Your task to perform on an android device: empty trash in google photos Image 0: 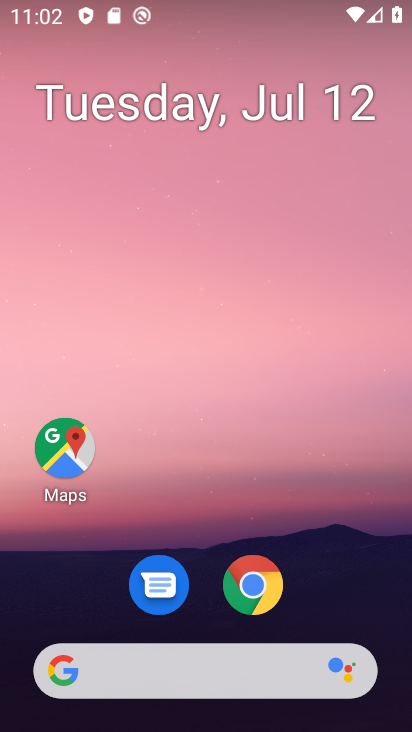
Step 0: drag from (323, 586) to (313, 103)
Your task to perform on an android device: empty trash in google photos Image 1: 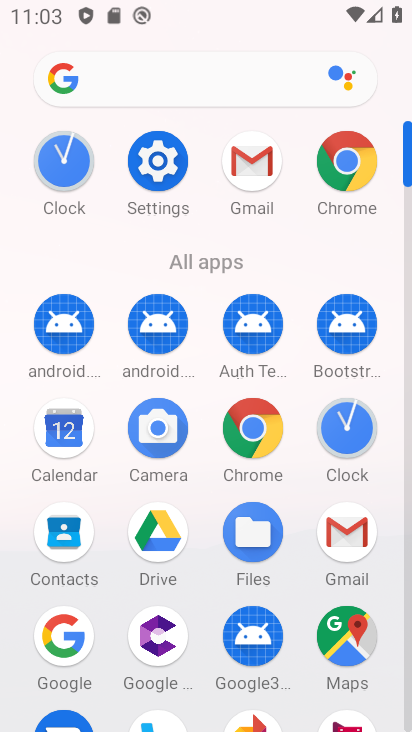
Step 1: drag from (212, 552) to (255, 170)
Your task to perform on an android device: empty trash in google photos Image 2: 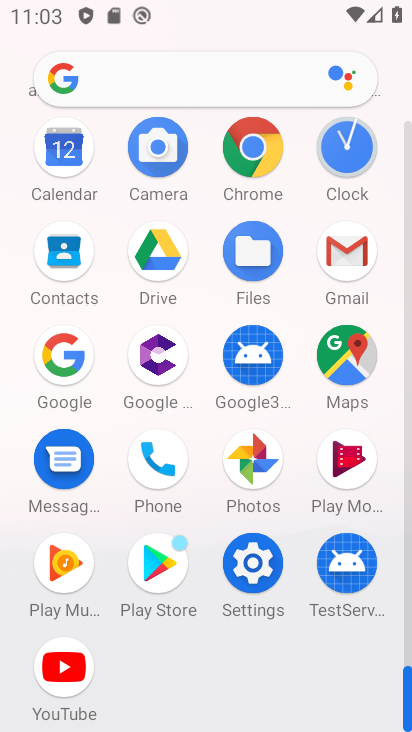
Step 2: click (248, 447)
Your task to perform on an android device: empty trash in google photos Image 3: 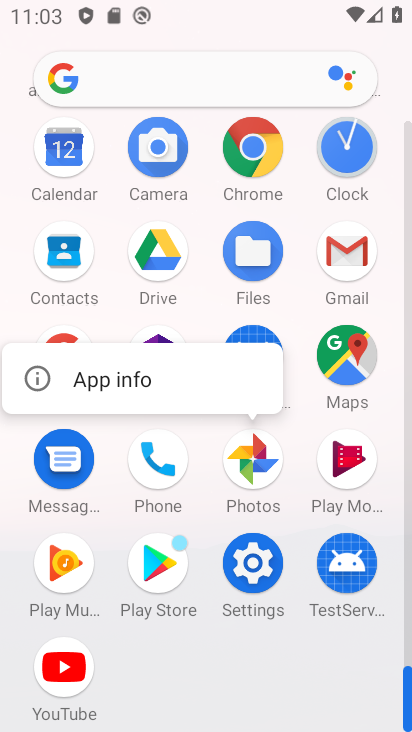
Step 3: click (248, 447)
Your task to perform on an android device: empty trash in google photos Image 4: 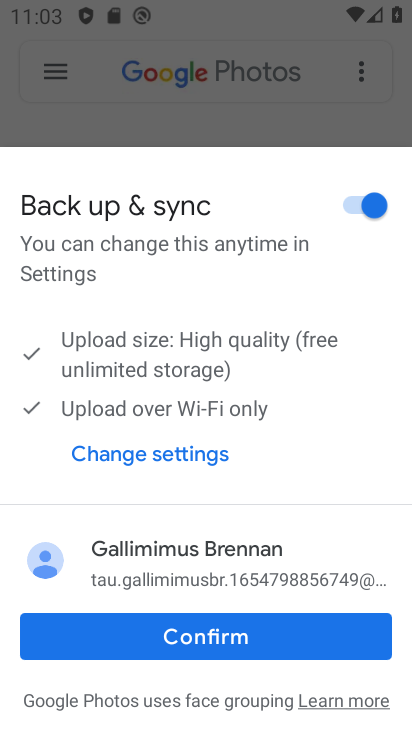
Step 4: click (249, 630)
Your task to perform on an android device: empty trash in google photos Image 5: 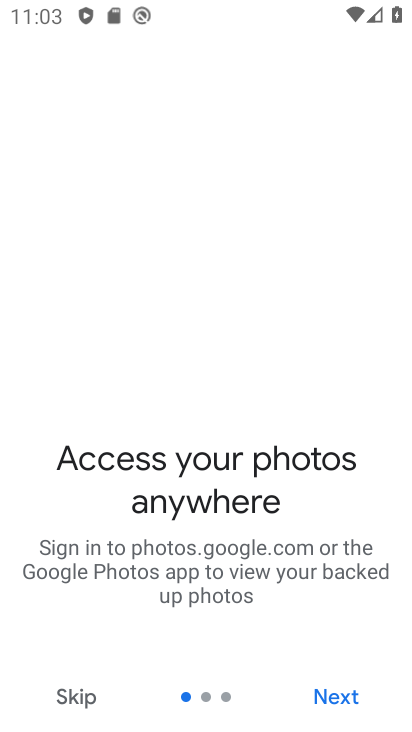
Step 5: click (334, 699)
Your task to perform on an android device: empty trash in google photos Image 6: 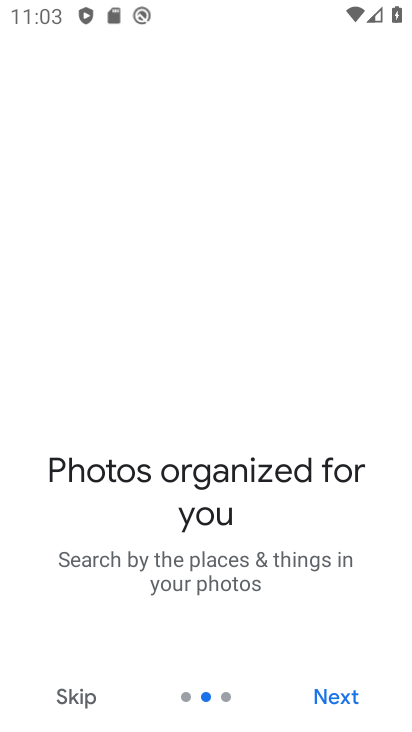
Step 6: click (334, 699)
Your task to perform on an android device: empty trash in google photos Image 7: 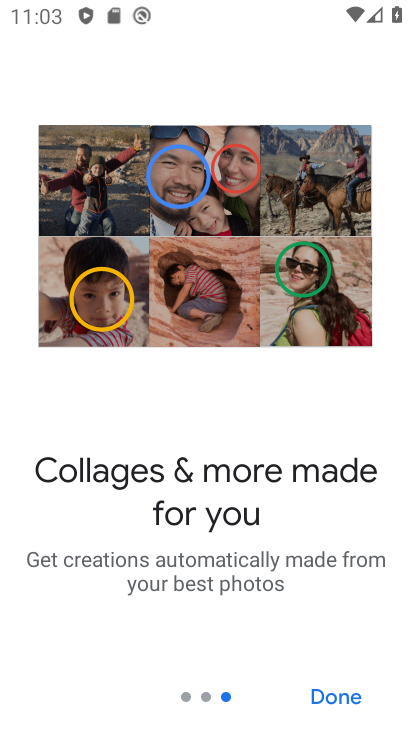
Step 7: click (334, 699)
Your task to perform on an android device: empty trash in google photos Image 8: 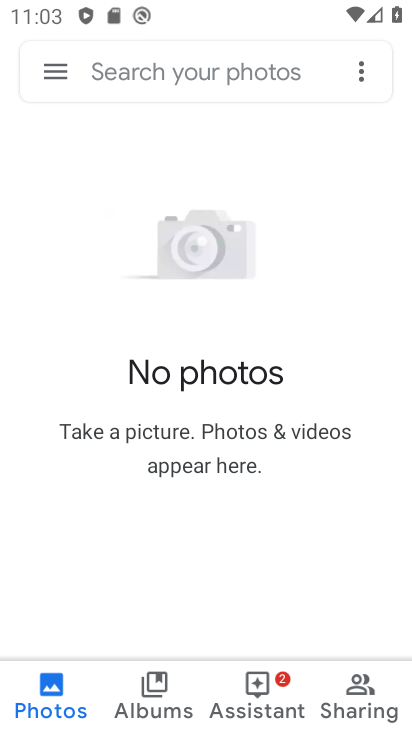
Step 8: click (57, 70)
Your task to perform on an android device: empty trash in google photos Image 9: 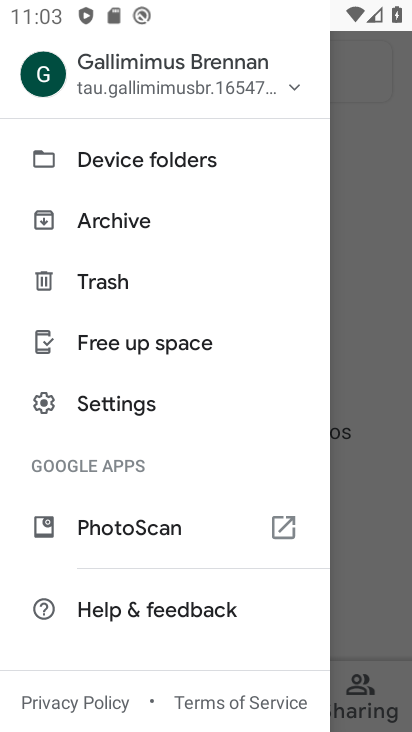
Step 9: click (130, 278)
Your task to perform on an android device: empty trash in google photos Image 10: 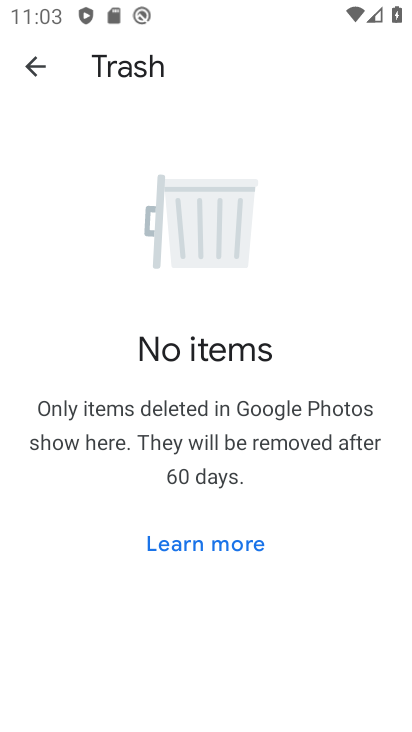
Step 10: task complete